Your task to perform on an android device: delete a single message in the gmail app Image 0: 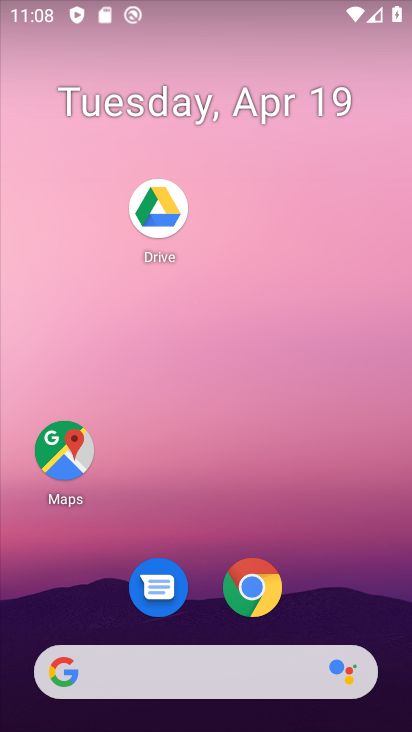
Step 0: drag from (341, 585) to (368, 133)
Your task to perform on an android device: delete a single message in the gmail app Image 1: 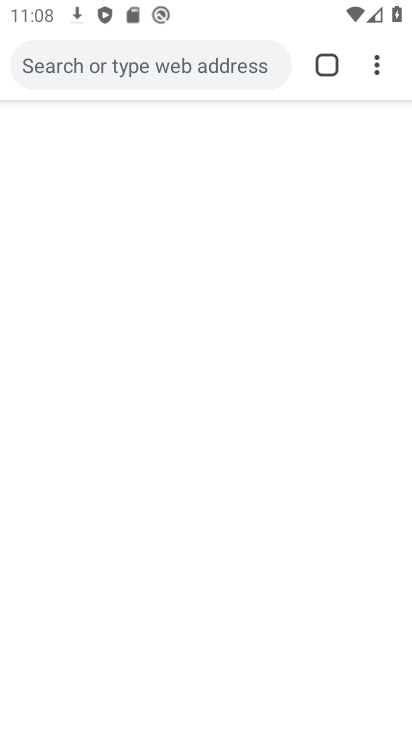
Step 1: press home button
Your task to perform on an android device: delete a single message in the gmail app Image 2: 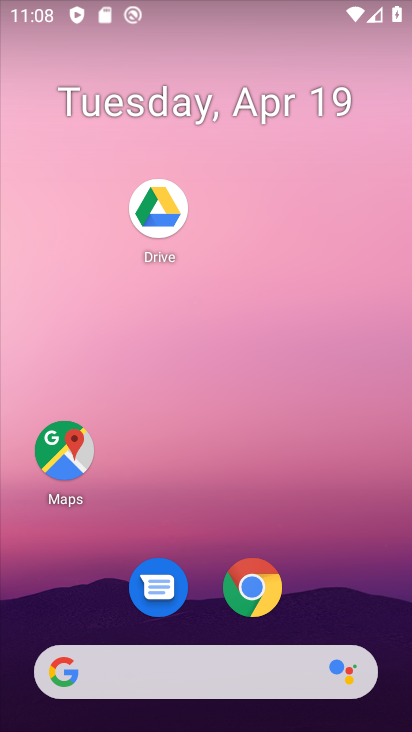
Step 2: drag from (316, 577) to (321, 150)
Your task to perform on an android device: delete a single message in the gmail app Image 3: 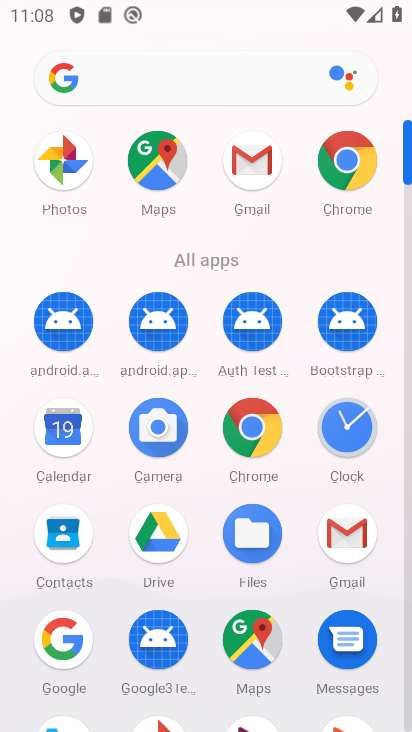
Step 3: click (336, 554)
Your task to perform on an android device: delete a single message in the gmail app Image 4: 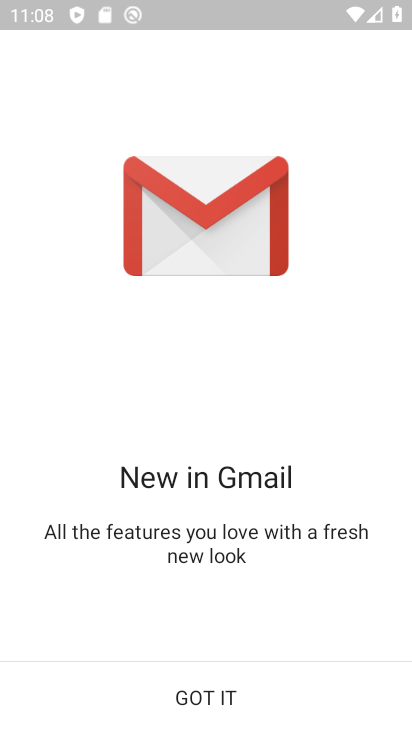
Step 4: click (217, 700)
Your task to perform on an android device: delete a single message in the gmail app Image 5: 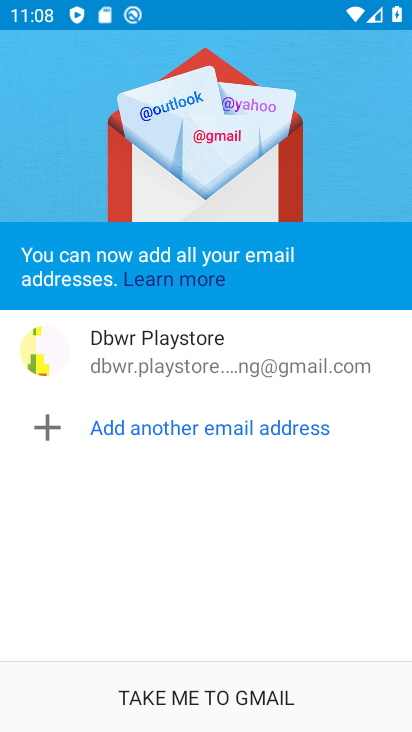
Step 5: click (218, 697)
Your task to perform on an android device: delete a single message in the gmail app Image 6: 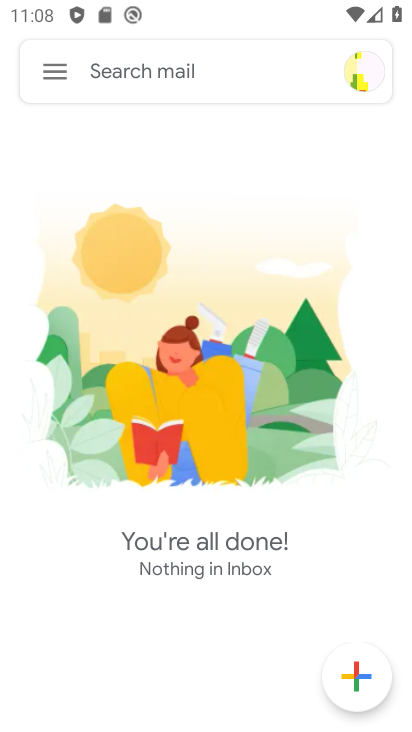
Step 6: task complete